Your task to perform on an android device: Open CNN.com Image 0: 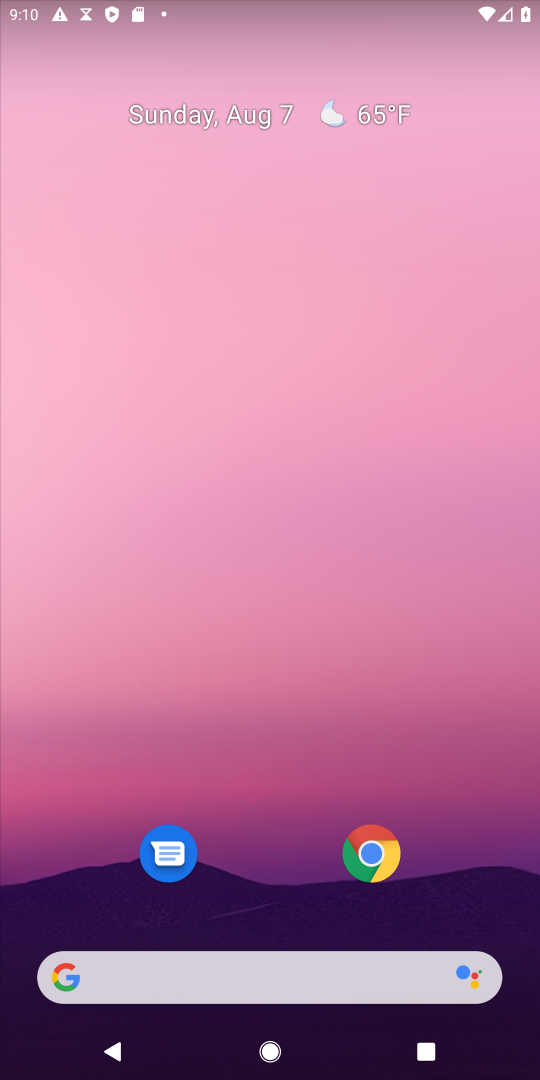
Step 0: drag from (133, 920) to (168, 72)
Your task to perform on an android device: Open CNN.com Image 1: 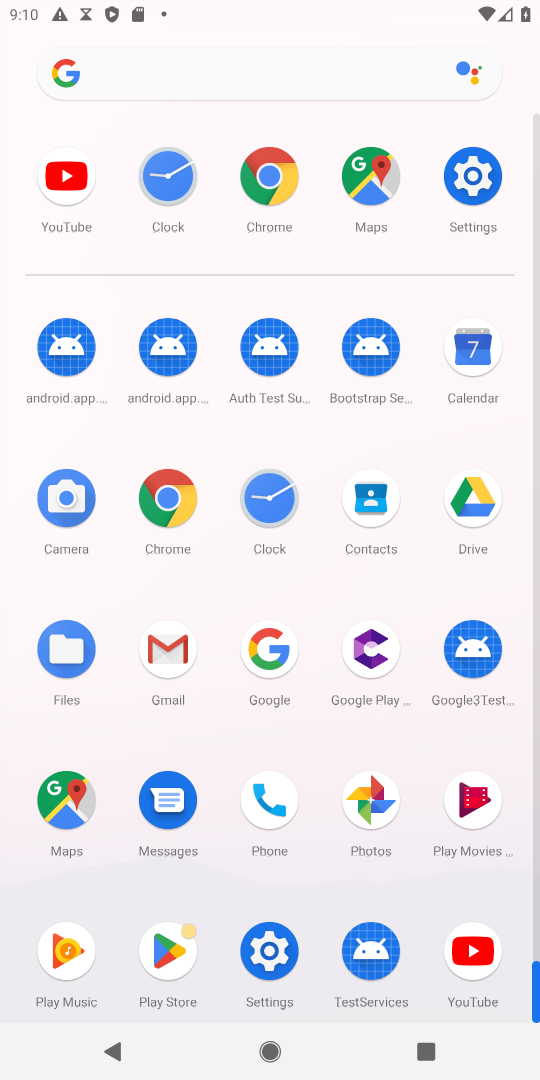
Step 1: click (275, 183)
Your task to perform on an android device: Open CNN.com Image 2: 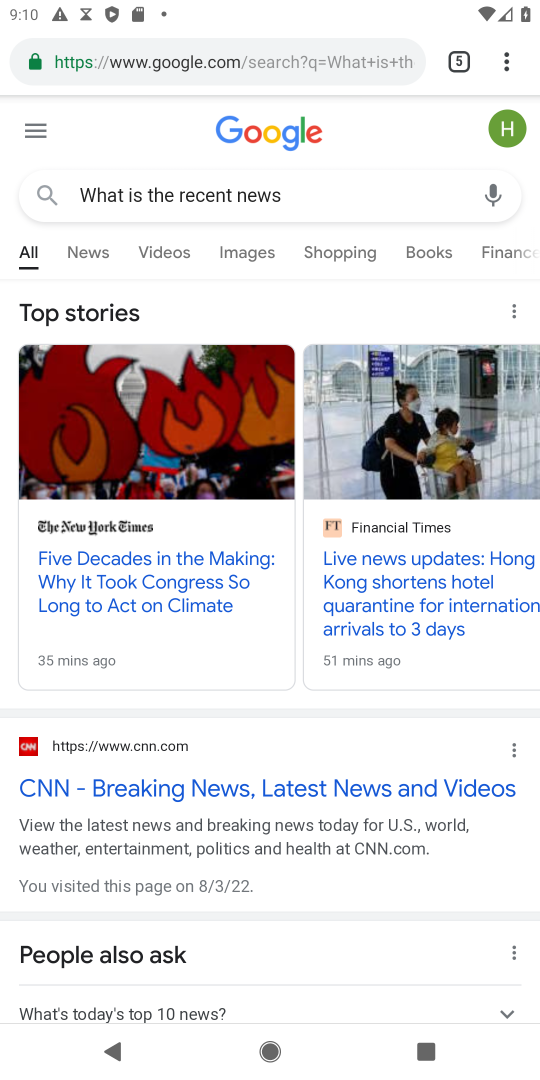
Step 2: click (513, 72)
Your task to perform on an android device: Open CNN.com Image 3: 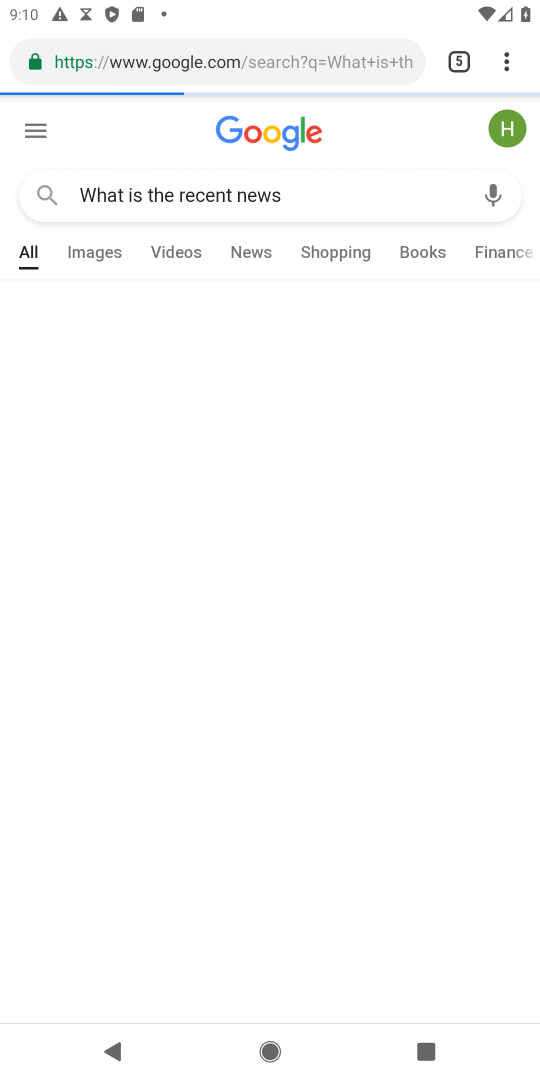
Step 3: click (519, 64)
Your task to perform on an android device: Open CNN.com Image 4: 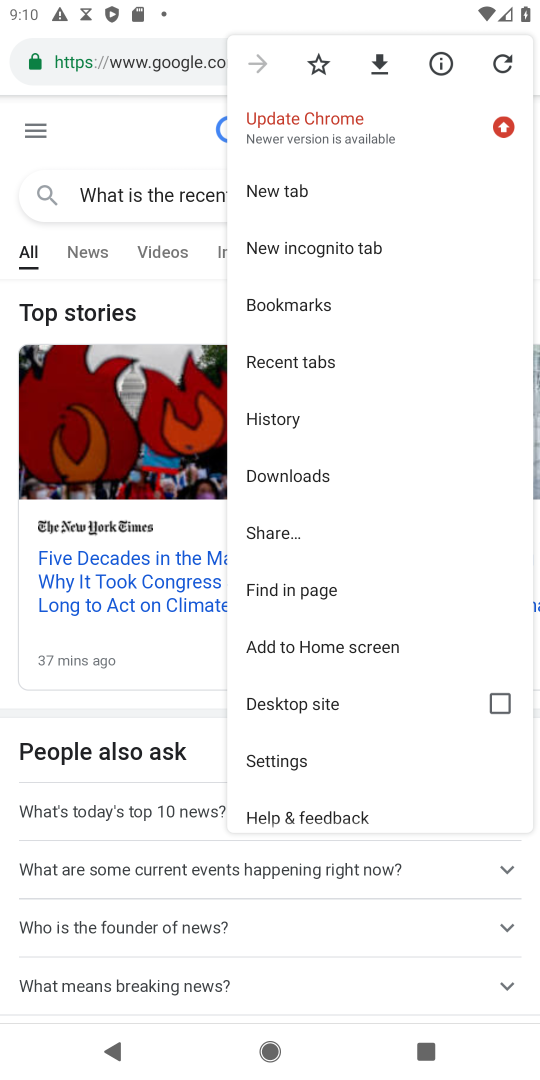
Step 4: click (288, 194)
Your task to perform on an android device: Open CNN.com Image 5: 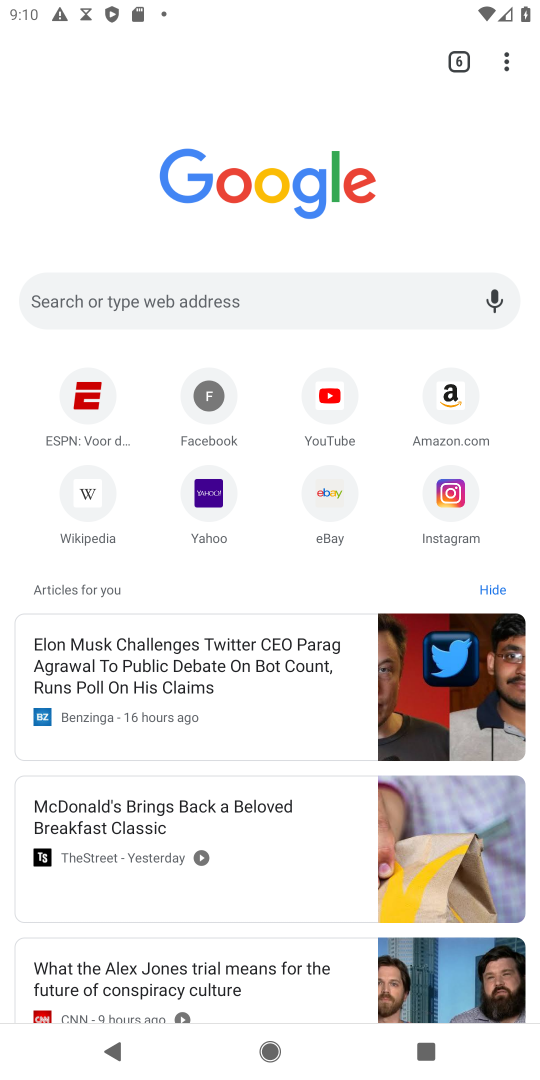
Step 5: click (251, 298)
Your task to perform on an android device: Open CNN.com Image 6: 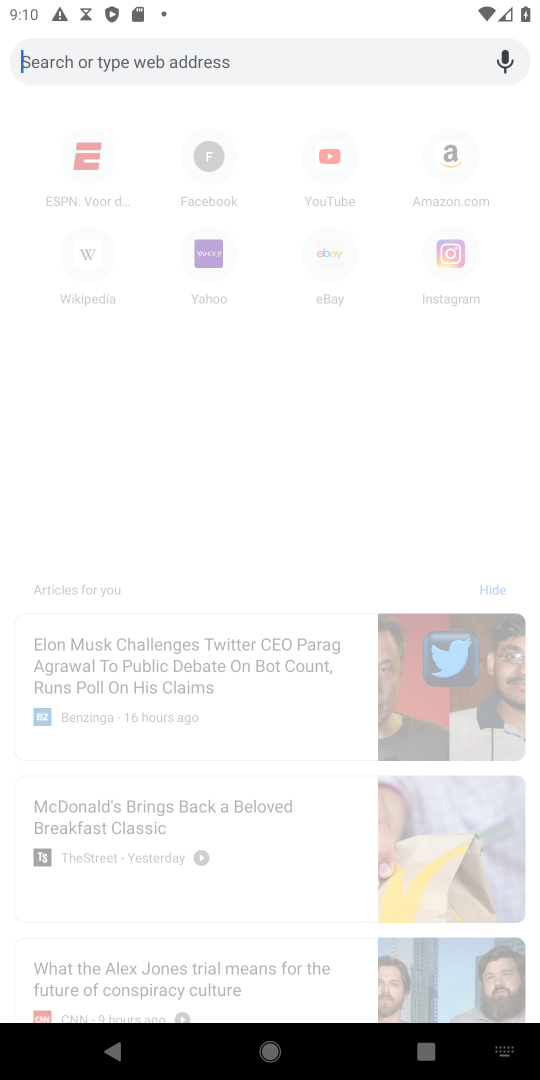
Step 6: type "CNN.com "
Your task to perform on an android device: Open CNN.com Image 7: 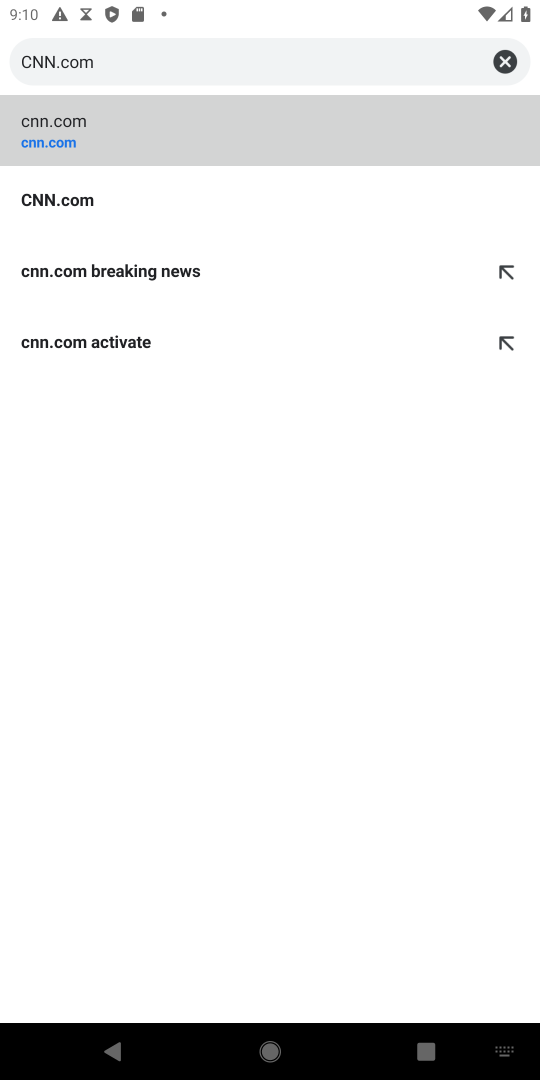
Step 7: click (167, 143)
Your task to perform on an android device: Open CNN.com Image 8: 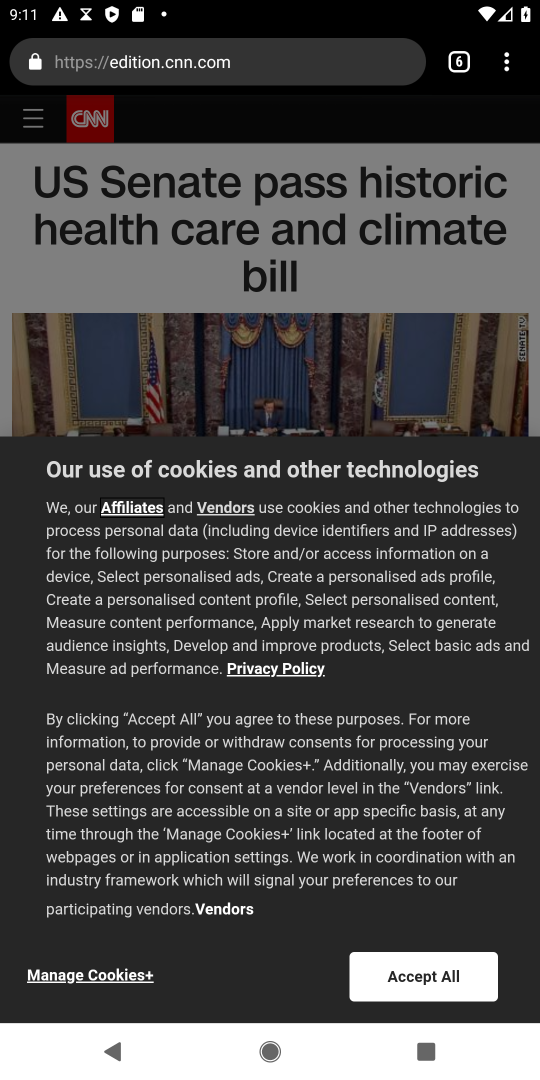
Step 8: task complete